Your task to perform on an android device: Go to privacy settings Image 0: 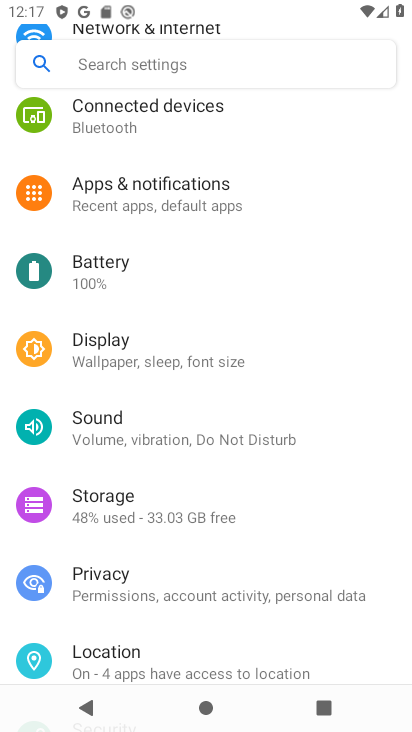
Step 0: drag from (363, 544) to (366, 321)
Your task to perform on an android device: Go to privacy settings Image 1: 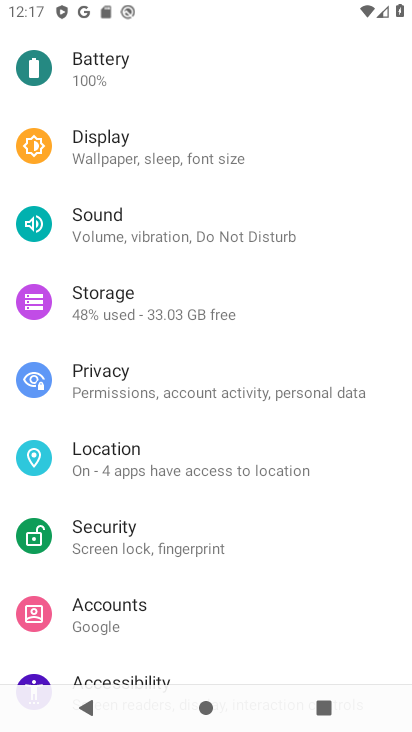
Step 1: drag from (359, 590) to (369, 448)
Your task to perform on an android device: Go to privacy settings Image 2: 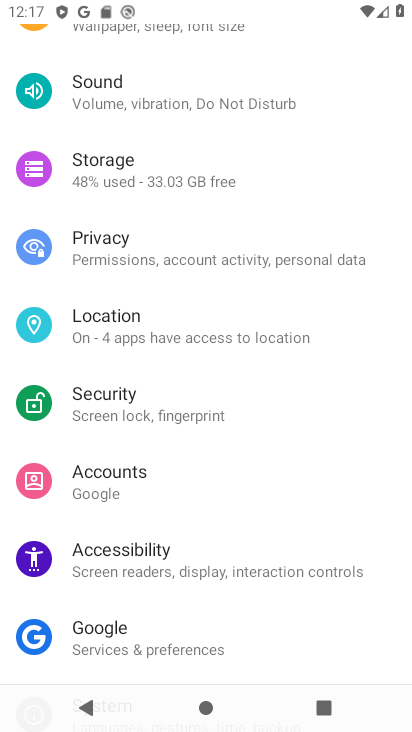
Step 2: drag from (310, 607) to (348, 367)
Your task to perform on an android device: Go to privacy settings Image 3: 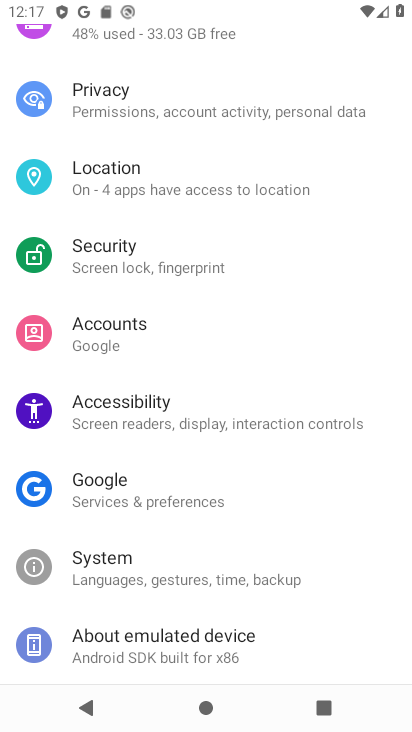
Step 3: drag from (322, 631) to (328, 419)
Your task to perform on an android device: Go to privacy settings Image 4: 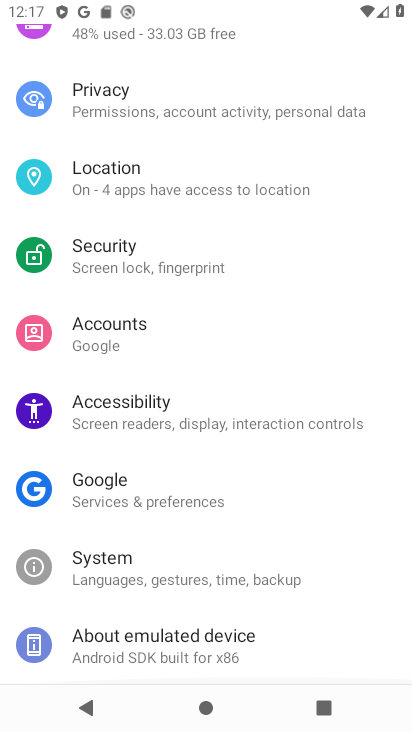
Step 4: drag from (336, 293) to (315, 429)
Your task to perform on an android device: Go to privacy settings Image 5: 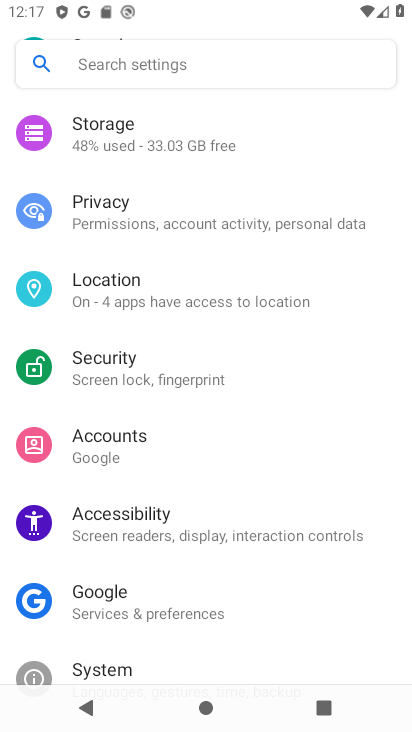
Step 5: drag from (342, 280) to (321, 431)
Your task to perform on an android device: Go to privacy settings Image 6: 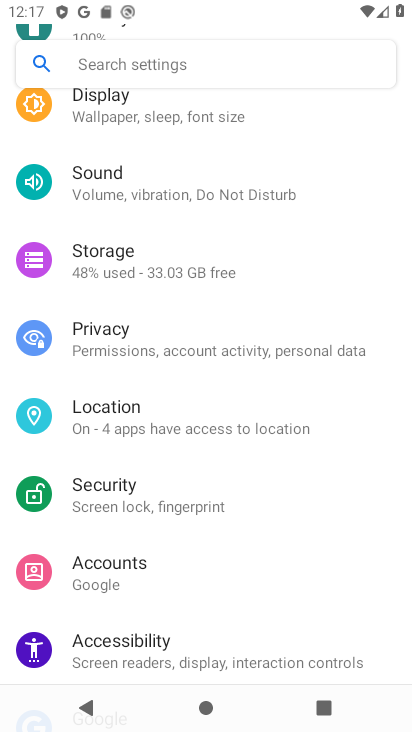
Step 6: drag from (317, 252) to (305, 360)
Your task to perform on an android device: Go to privacy settings Image 7: 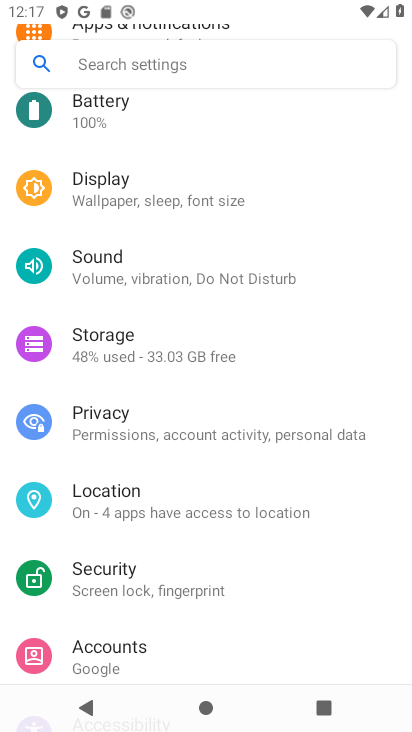
Step 7: drag from (312, 227) to (306, 359)
Your task to perform on an android device: Go to privacy settings Image 8: 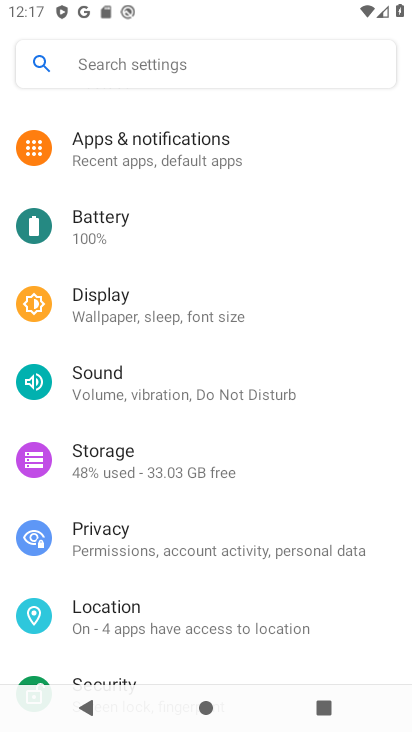
Step 8: drag from (323, 252) to (319, 345)
Your task to perform on an android device: Go to privacy settings Image 9: 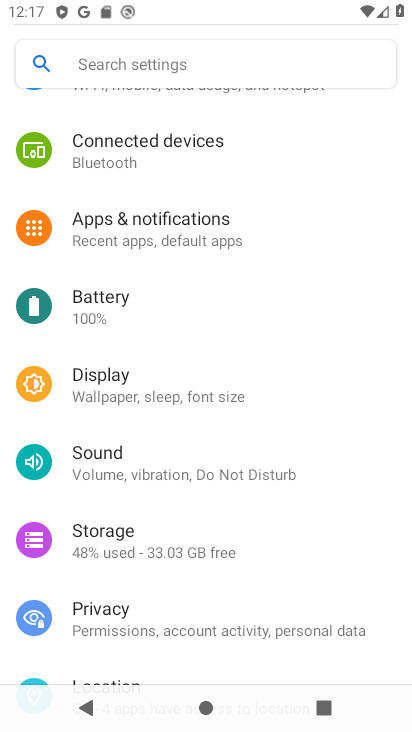
Step 9: drag from (317, 248) to (306, 360)
Your task to perform on an android device: Go to privacy settings Image 10: 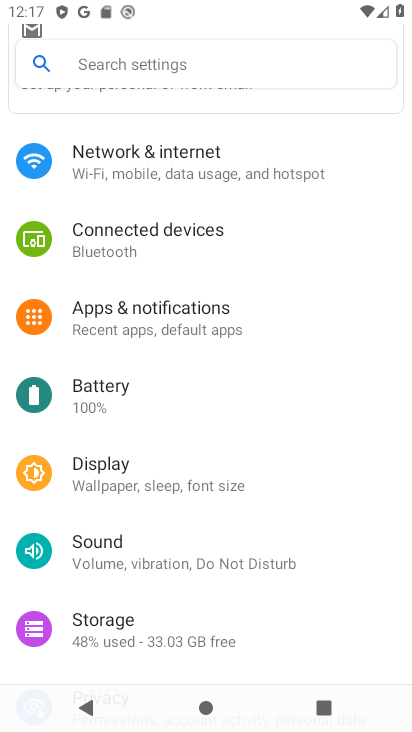
Step 10: drag from (302, 266) to (304, 430)
Your task to perform on an android device: Go to privacy settings Image 11: 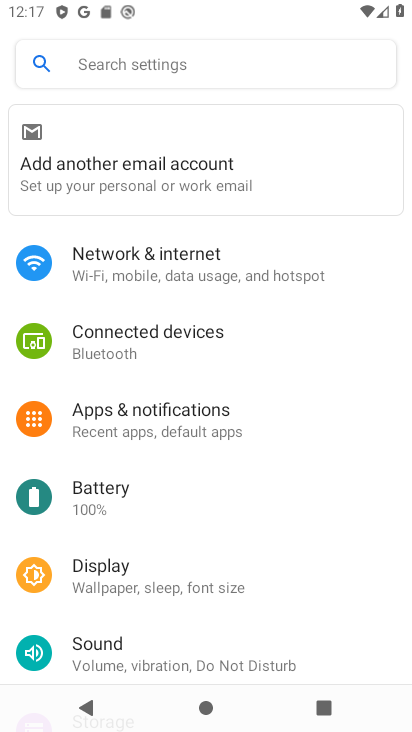
Step 11: drag from (326, 544) to (319, 416)
Your task to perform on an android device: Go to privacy settings Image 12: 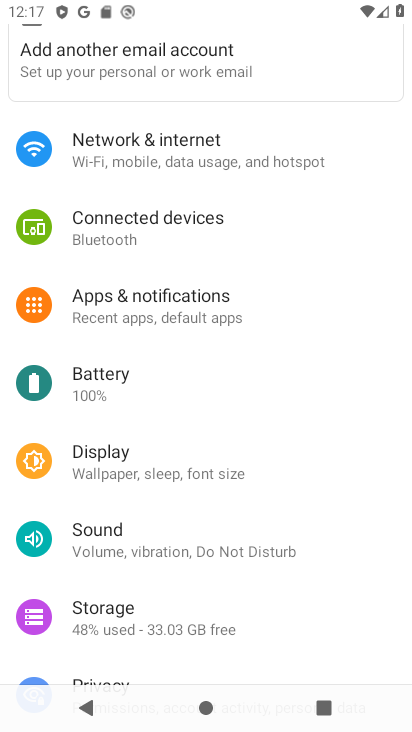
Step 12: drag from (293, 575) to (315, 357)
Your task to perform on an android device: Go to privacy settings Image 13: 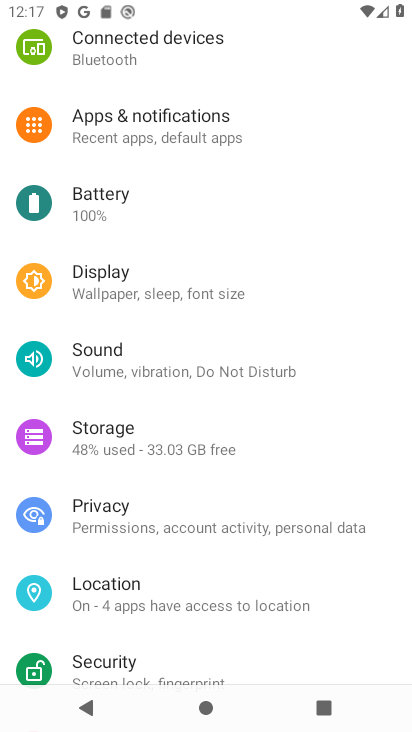
Step 13: drag from (302, 582) to (314, 437)
Your task to perform on an android device: Go to privacy settings Image 14: 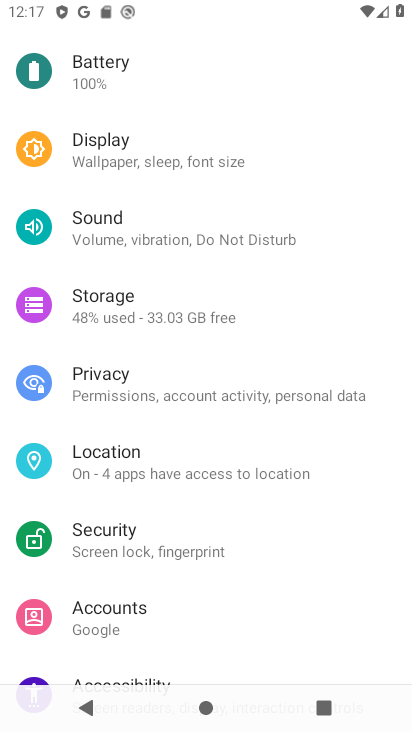
Step 14: click (257, 398)
Your task to perform on an android device: Go to privacy settings Image 15: 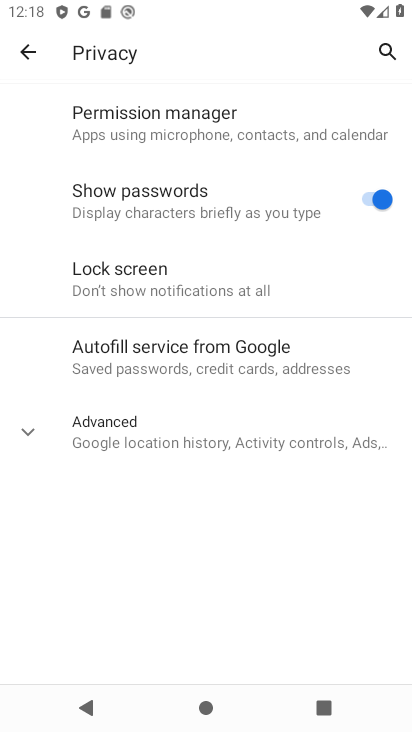
Step 15: task complete